Your task to perform on an android device: Open privacy settings Image 0: 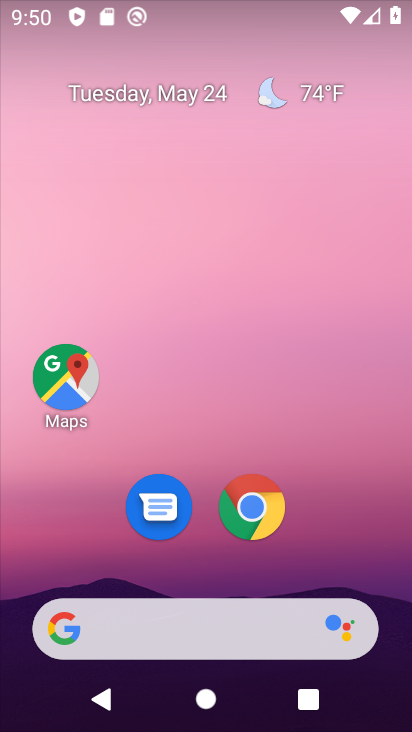
Step 0: drag from (237, 714) to (222, 3)
Your task to perform on an android device: Open privacy settings Image 1: 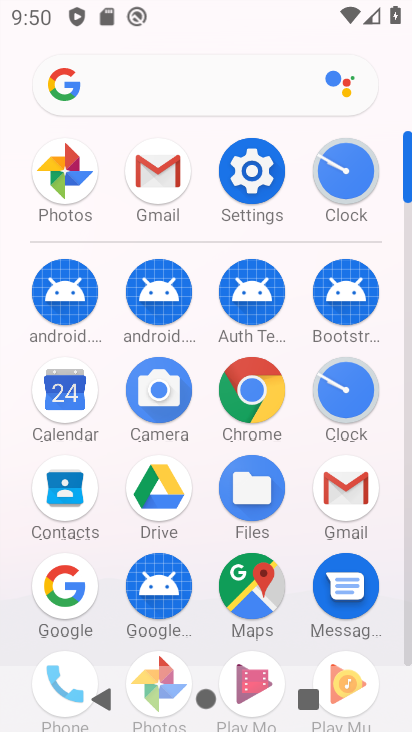
Step 1: click (251, 173)
Your task to perform on an android device: Open privacy settings Image 2: 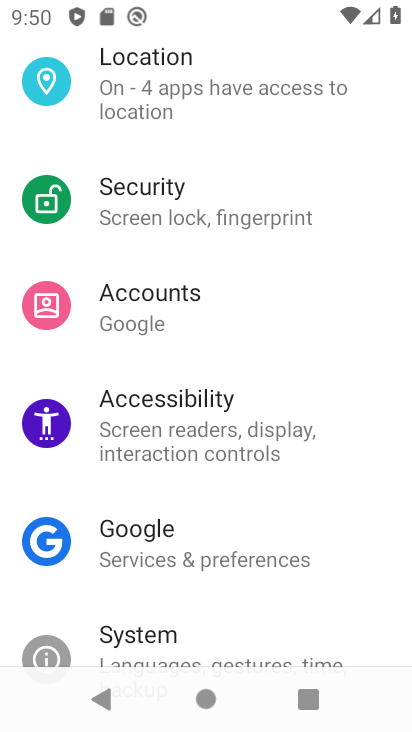
Step 2: drag from (215, 167) to (215, 583)
Your task to perform on an android device: Open privacy settings Image 3: 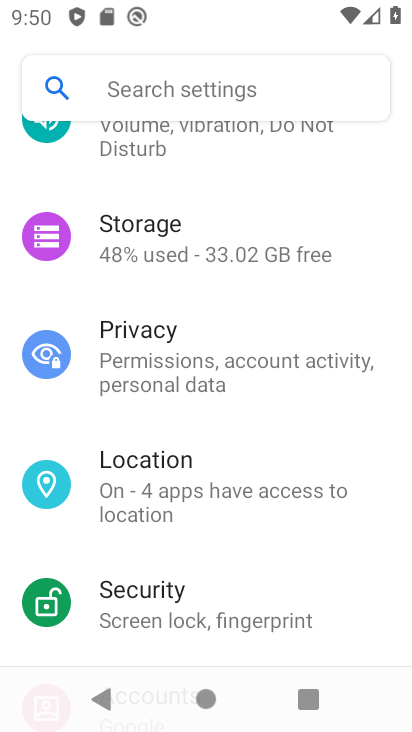
Step 3: click (133, 354)
Your task to perform on an android device: Open privacy settings Image 4: 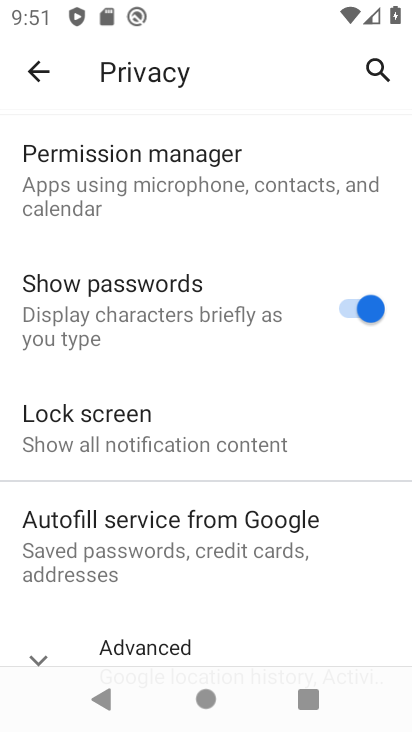
Step 4: task complete